Your task to perform on an android device: Is it going to rain today? Image 0: 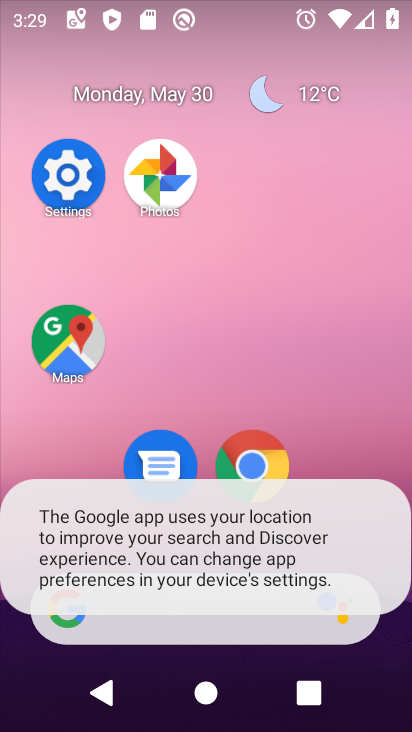
Step 0: drag from (328, 459) to (316, 53)
Your task to perform on an android device: Is it going to rain today? Image 1: 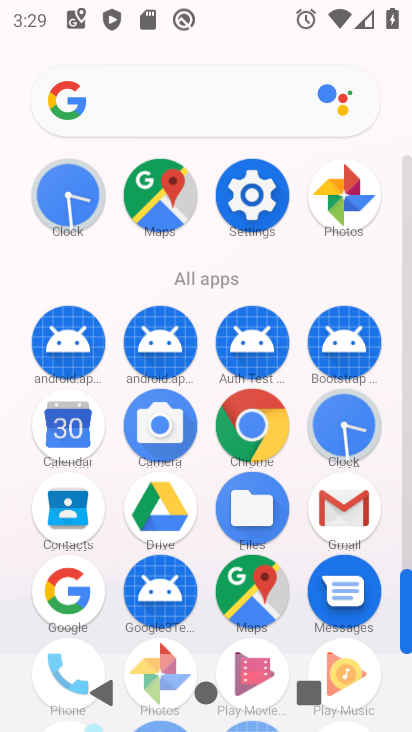
Step 1: drag from (171, 579) to (163, 284)
Your task to perform on an android device: Is it going to rain today? Image 2: 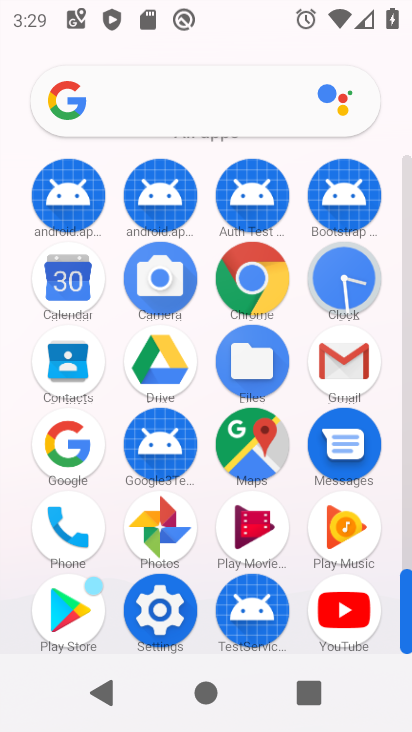
Step 2: click (70, 463)
Your task to perform on an android device: Is it going to rain today? Image 3: 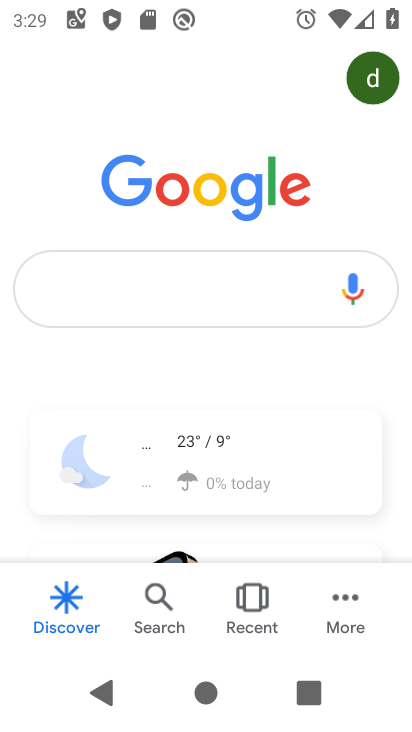
Step 3: click (164, 288)
Your task to perform on an android device: Is it going to rain today? Image 4: 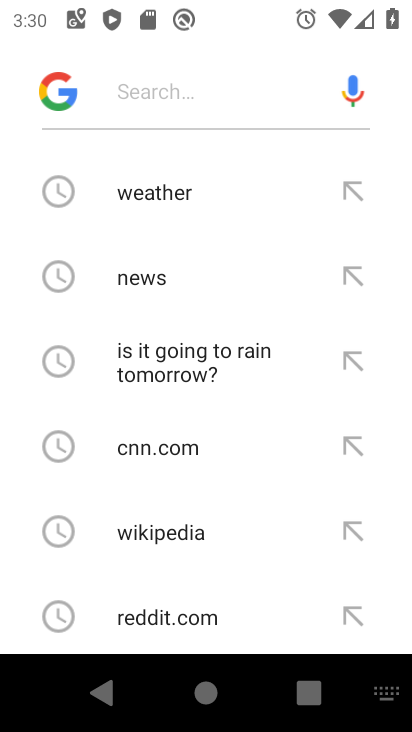
Step 4: click (173, 196)
Your task to perform on an android device: Is it going to rain today? Image 5: 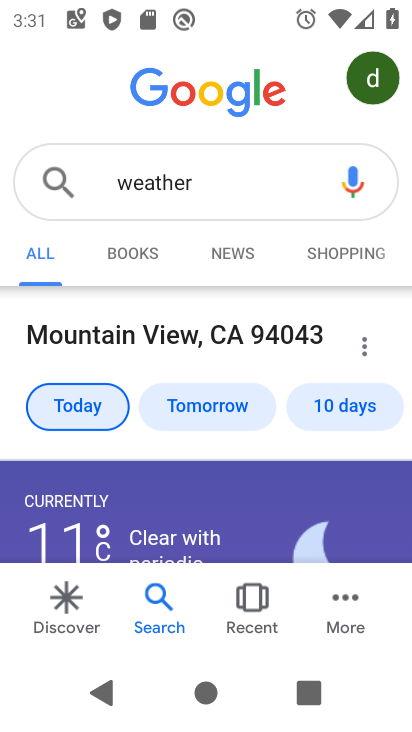
Step 5: task complete